Your task to perform on an android device: show emergency info Image 0: 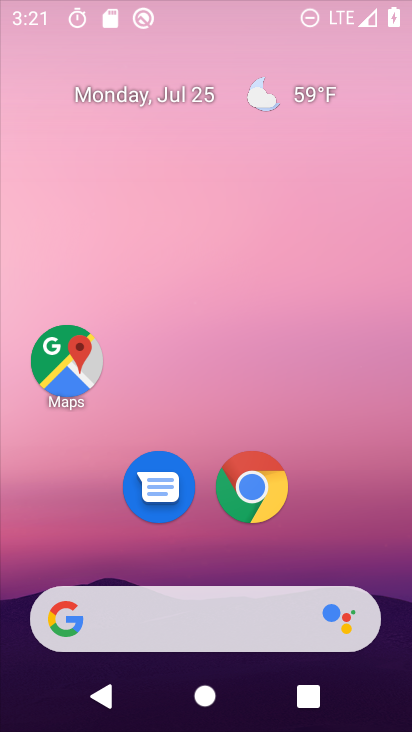
Step 0: drag from (147, 491) to (247, 38)
Your task to perform on an android device: show emergency info Image 1: 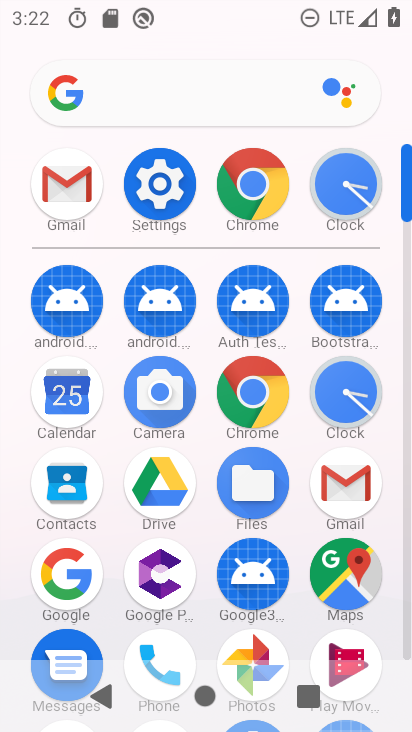
Step 1: click (157, 178)
Your task to perform on an android device: show emergency info Image 2: 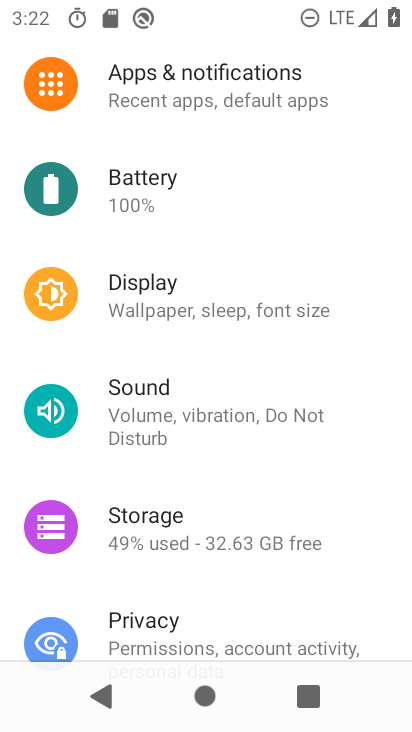
Step 2: drag from (169, 622) to (337, 31)
Your task to perform on an android device: show emergency info Image 3: 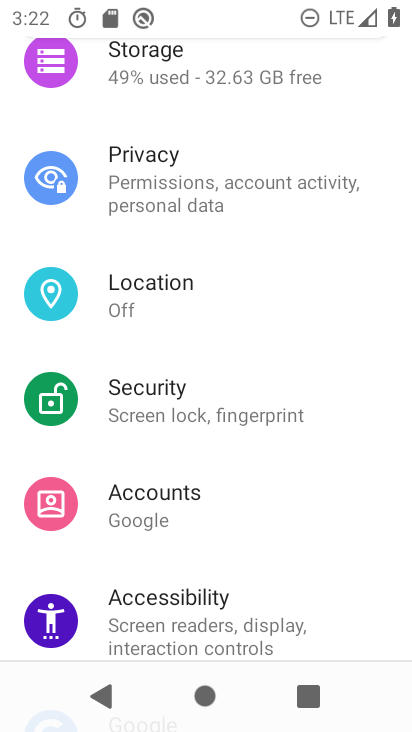
Step 3: drag from (178, 527) to (295, 42)
Your task to perform on an android device: show emergency info Image 4: 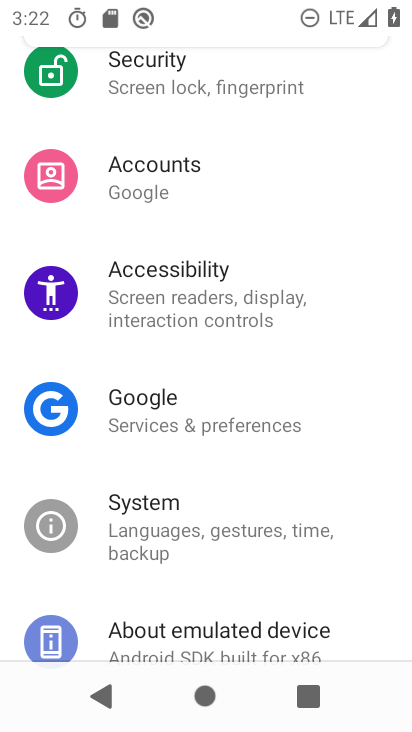
Step 4: drag from (243, 444) to (401, 48)
Your task to perform on an android device: show emergency info Image 5: 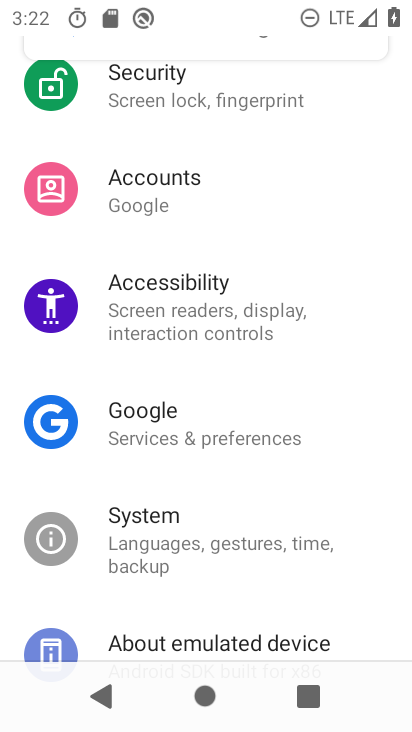
Step 5: click (180, 637)
Your task to perform on an android device: show emergency info Image 6: 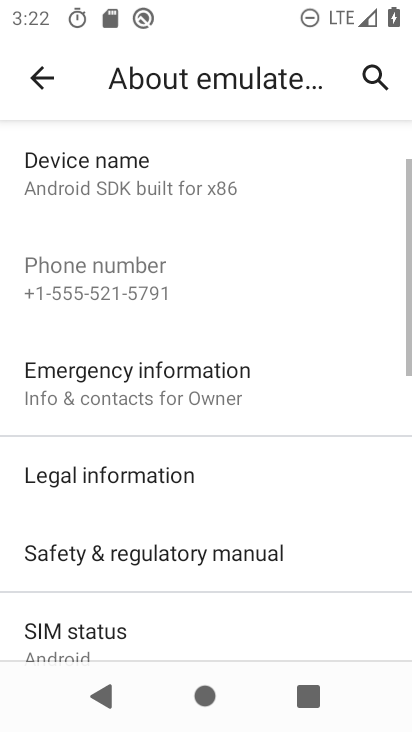
Step 6: click (151, 390)
Your task to perform on an android device: show emergency info Image 7: 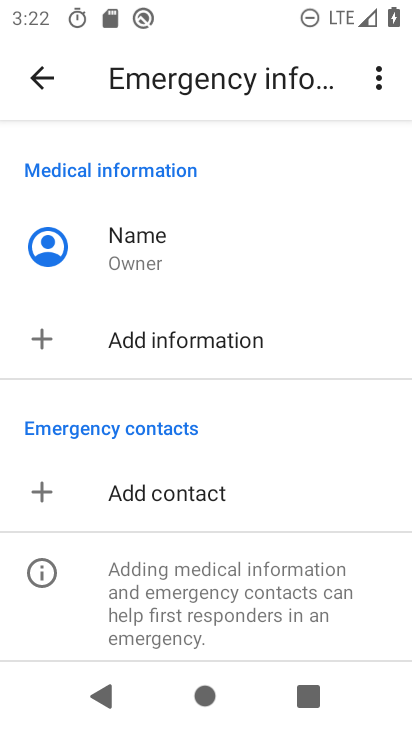
Step 7: task complete